Your task to perform on an android device: set an alarm Image 0: 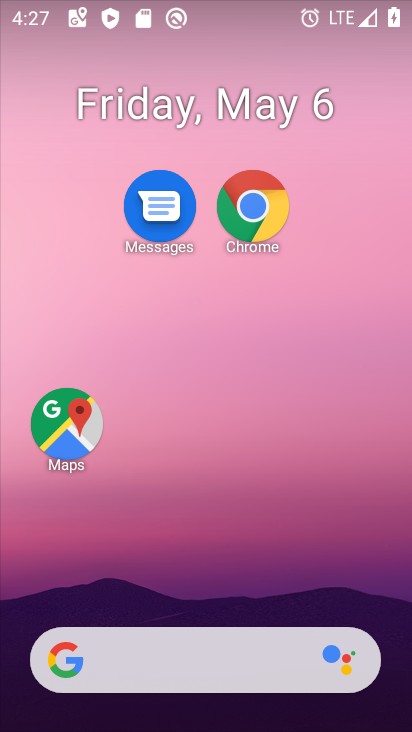
Step 0: drag from (163, 624) to (177, 292)
Your task to perform on an android device: set an alarm Image 1: 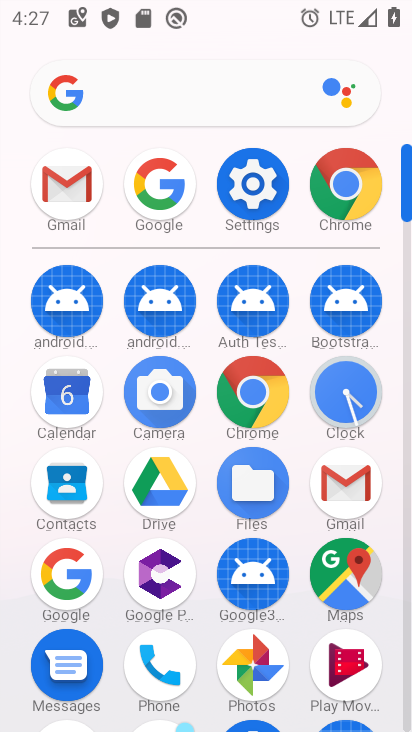
Step 1: click (339, 425)
Your task to perform on an android device: set an alarm Image 2: 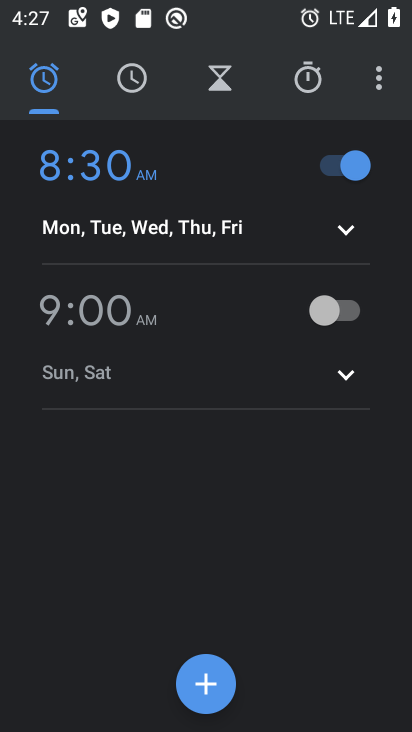
Step 2: click (211, 682)
Your task to perform on an android device: set an alarm Image 3: 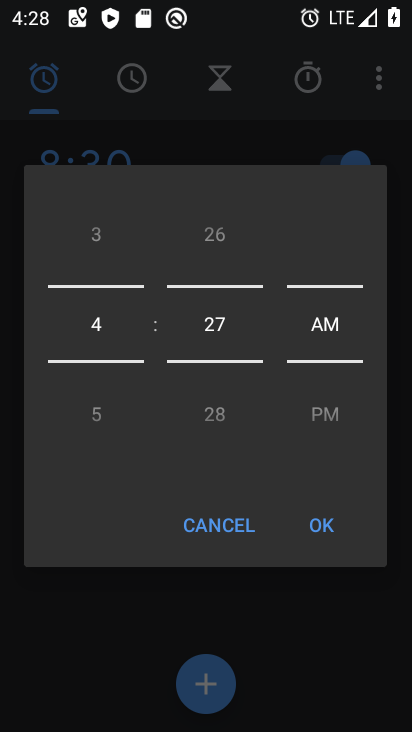
Step 3: drag from (115, 347) to (92, 211)
Your task to perform on an android device: set an alarm Image 4: 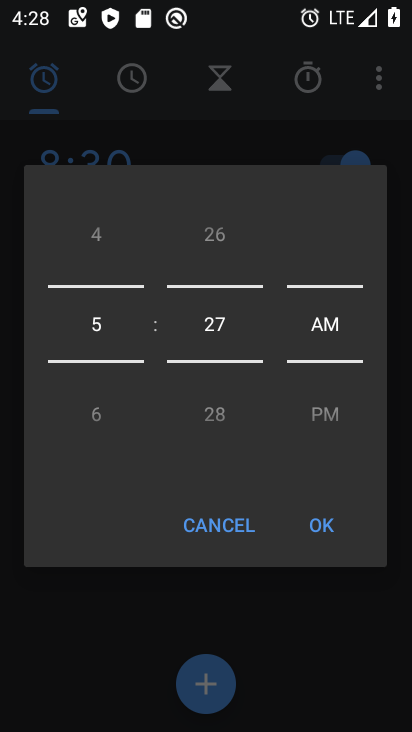
Step 4: drag from (225, 343) to (211, 262)
Your task to perform on an android device: set an alarm Image 5: 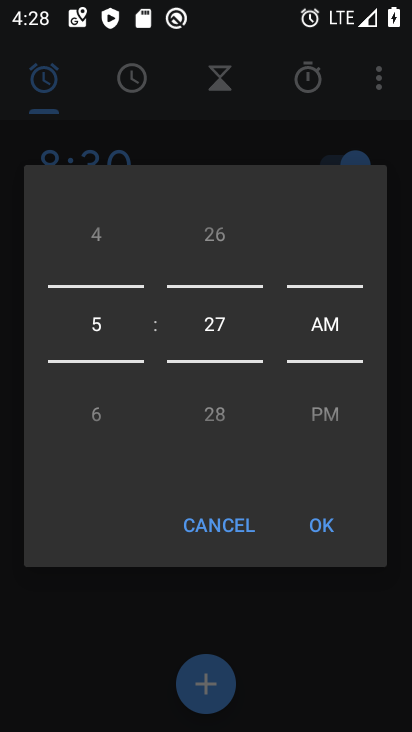
Step 5: drag from (313, 348) to (304, 262)
Your task to perform on an android device: set an alarm Image 6: 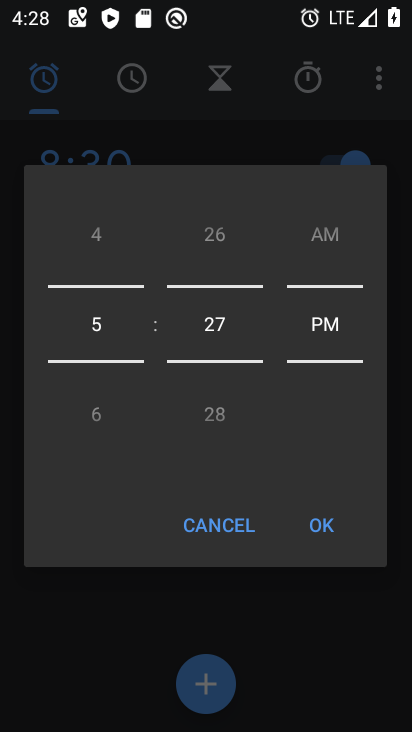
Step 6: click (323, 528)
Your task to perform on an android device: set an alarm Image 7: 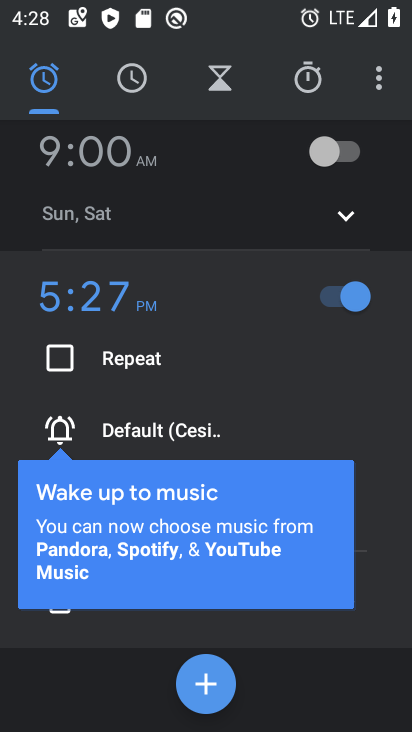
Step 7: click (60, 687)
Your task to perform on an android device: set an alarm Image 8: 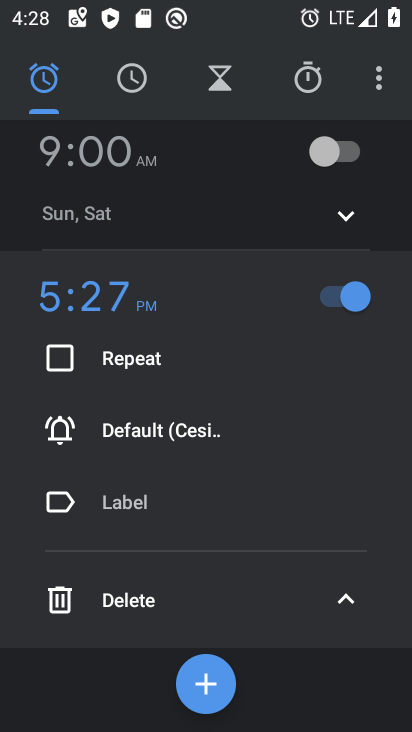
Step 8: task complete